Your task to perform on an android device: Open calendar and show me the fourth week of next month Image 0: 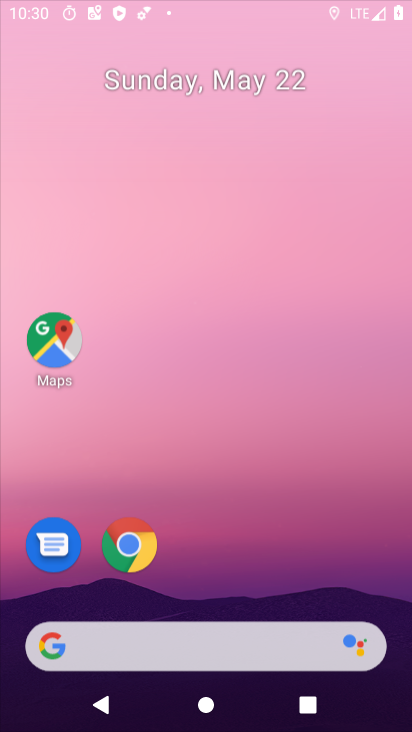
Step 0: click (315, 260)
Your task to perform on an android device: Open calendar and show me the fourth week of next month Image 1: 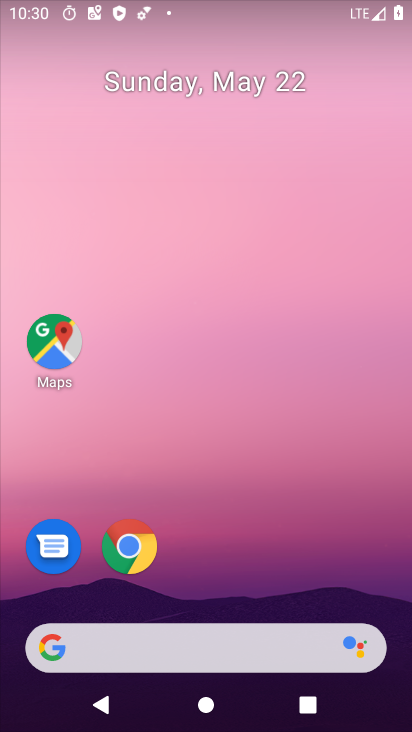
Step 1: drag from (198, 592) to (248, 1)
Your task to perform on an android device: Open calendar and show me the fourth week of next month Image 2: 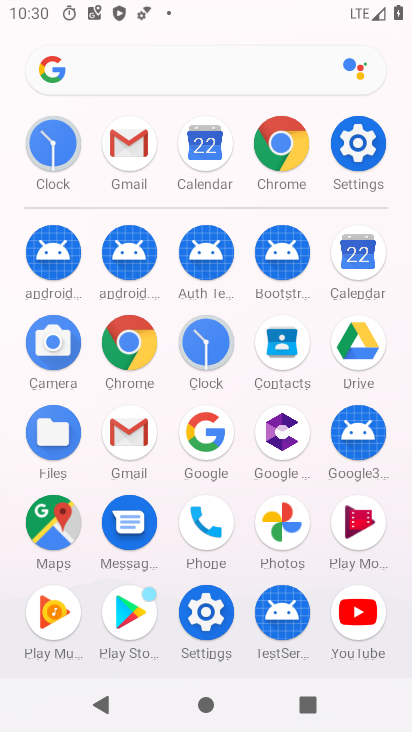
Step 2: click (359, 255)
Your task to perform on an android device: Open calendar and show me the fourth week of next month Image 3: 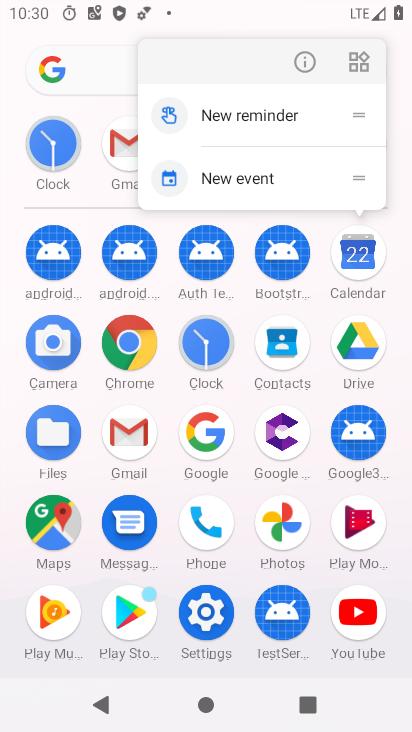
Step 3: click (301, 56)
Your task to perform on an android device: Open calendar and show me the fourth week of next month Image 4: 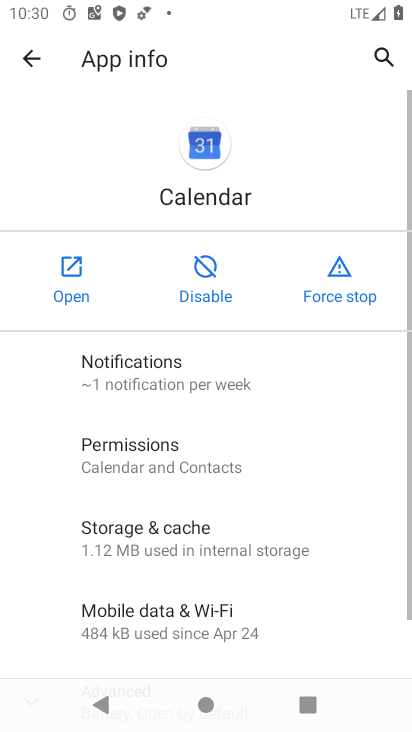
Step 4: click (77, 272)
Your task to perform on an android device: Open calendar and show me the fourth week of next month Image 5: 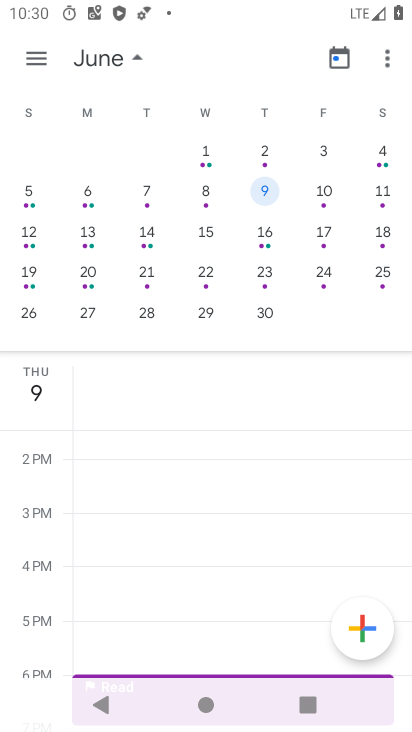
Step 5: click (375, 239)
Your task to perform on an android device: Open calendar and show me the fourth week of next month Image 6: 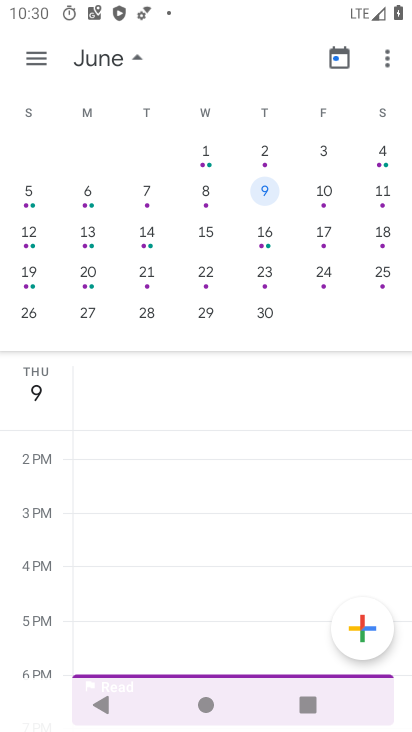
Step 6: click (270, 267)
Your task to perform on an android device: Open calendar and show me the fourth week of next month Image 7: 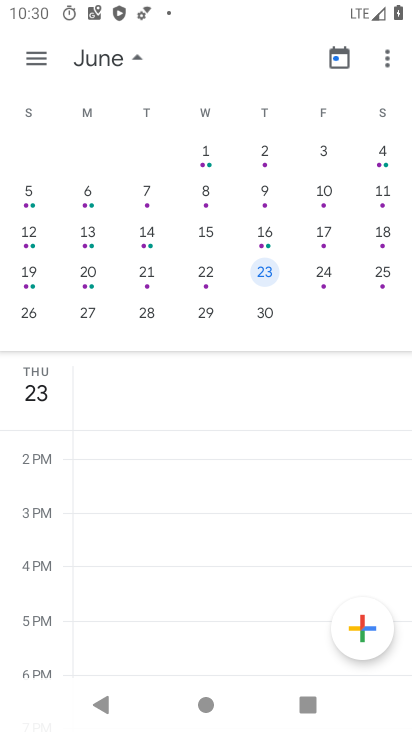
Step 7: task complete